Your task to perform on an android device: open chrome privacy settings Image 0: 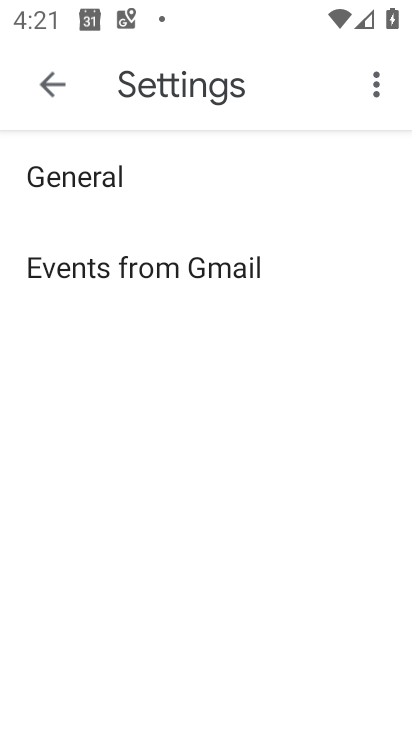
Step 0: task complete